Your task to perform on an android device: Open CNN.com Image 0: 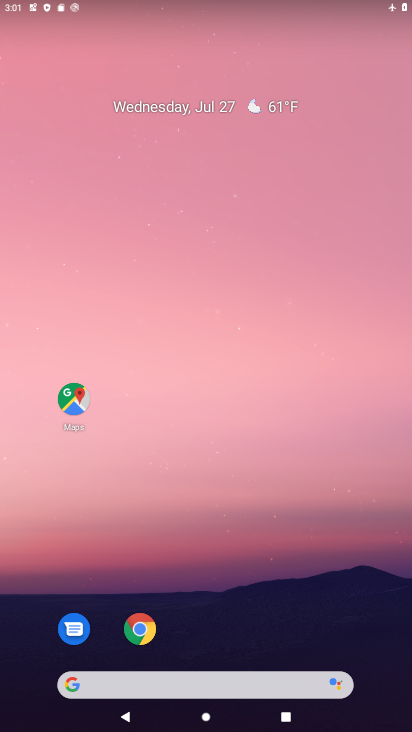
Step 0: click (140, 630)
Your task to perform on an android device: Open CNN.com Image 1: 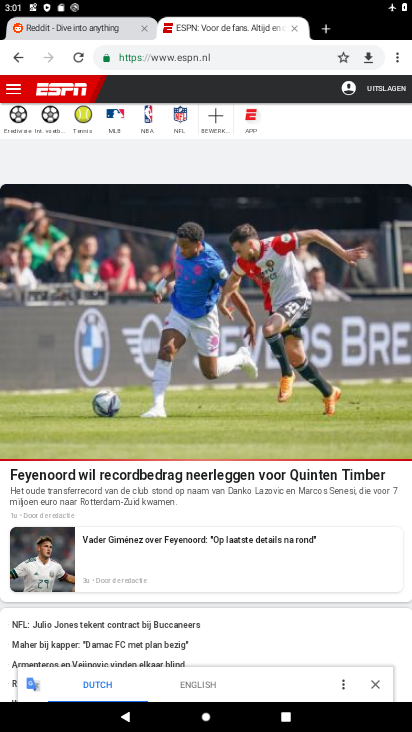
Step 1: click (287, 59)
Your task to perform on an android device: Open CNN.com Image 2: 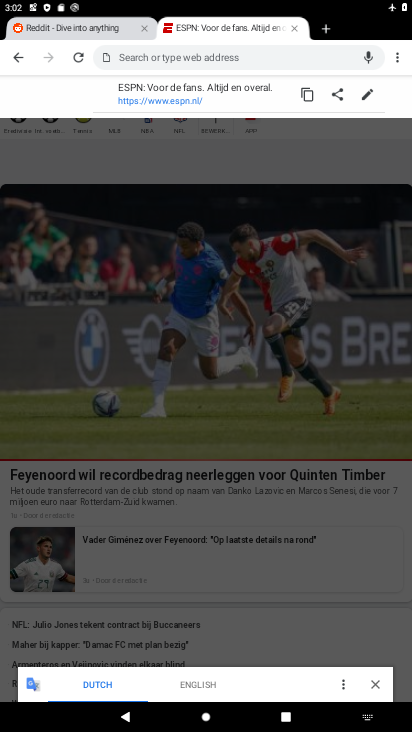
Step 2: type "CNN.com"
Your task to perform on an android device: Open CNN.com Image 3: 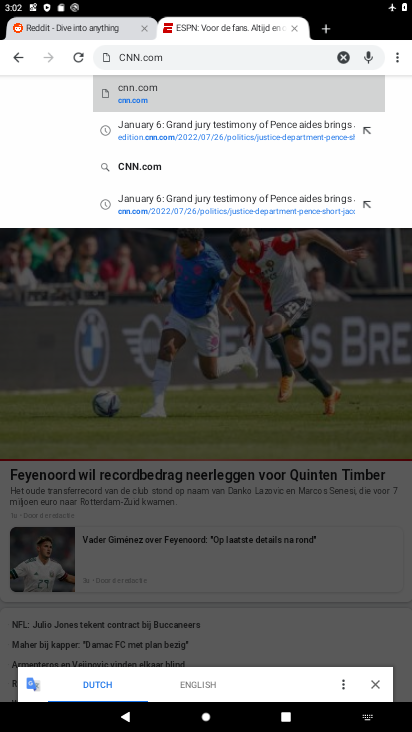
Step 3: click (152, 166)
Your task to perform on an android device: Open CNN.com Image 4: 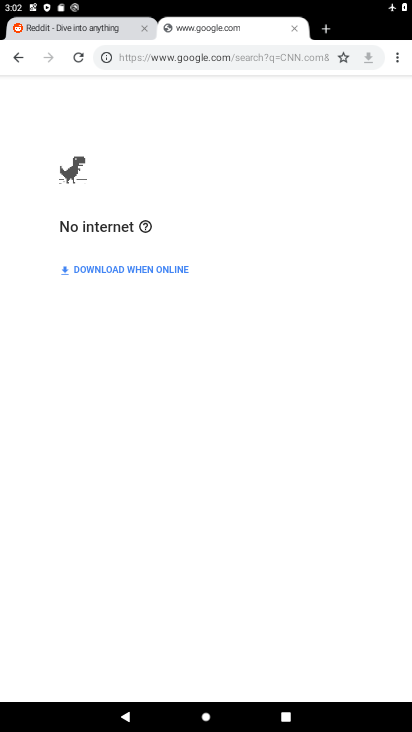
Step 4: click (75, 64)
Your task to perform on an android device: Open CNN.com Image 5: 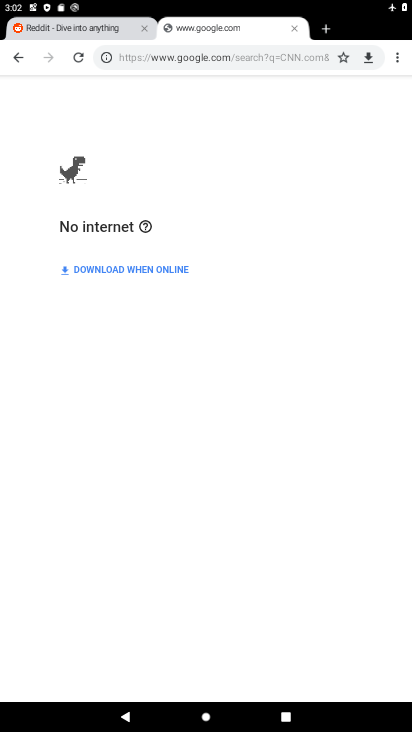
Step 5: task complete